Your task to perform on an android device: Go to sound settings Image 0: 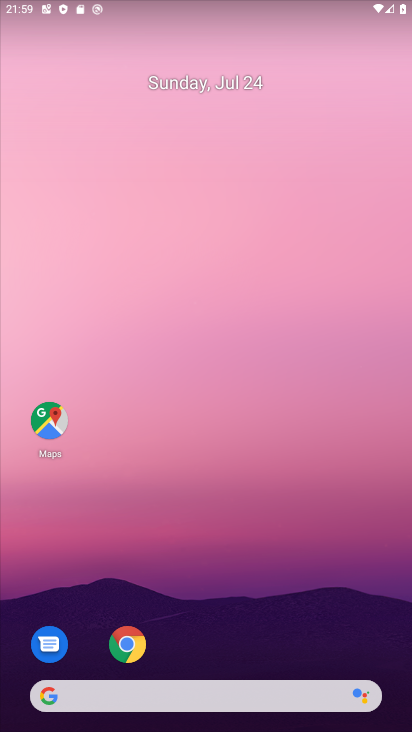
Step 0: drag from (386, 653) to (332, 84)
Your task to perform on an android device: Go to sound settings Image 1: 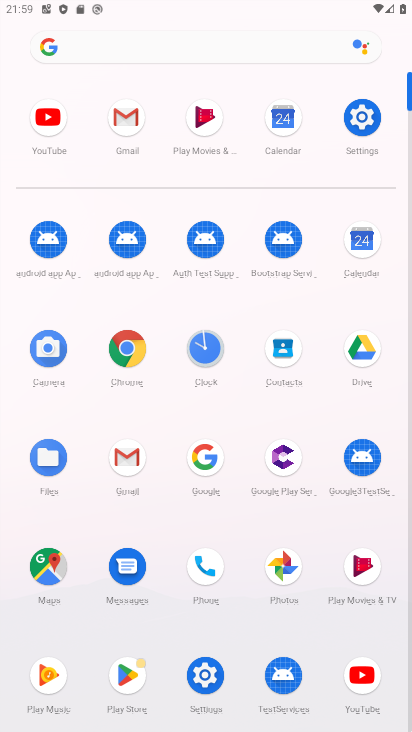
Step 1: click (203, 674)
Your task to perform on an android device: Go to sound settings Image 2: 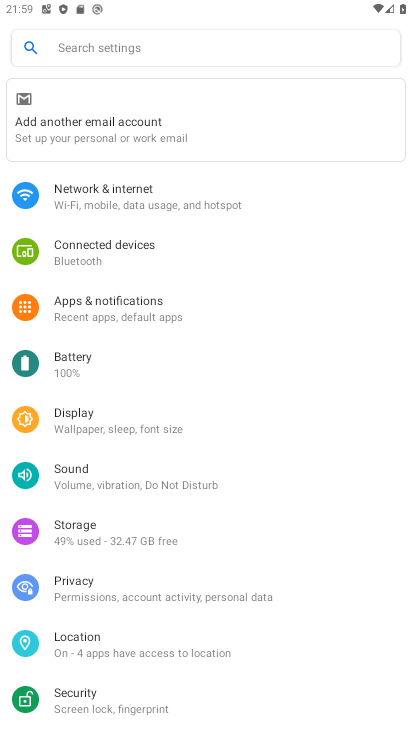
Step 2: click (65, 472)
Your task to perform on an android device: Go to sound settings Image 3: 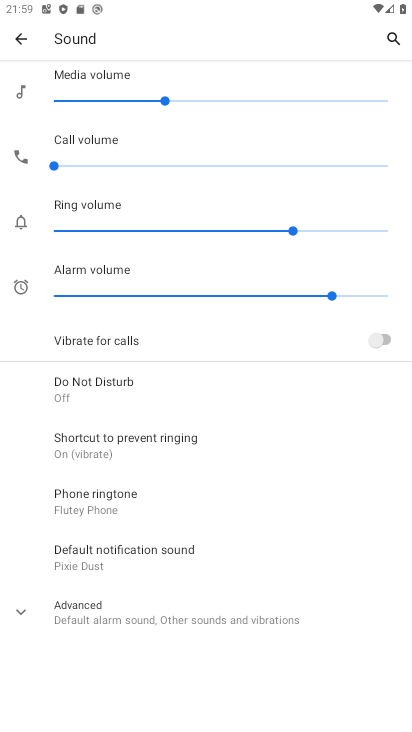
Step 3: click (21, 613)
Your task to perform on an android device: Go to sound settings Image 4: 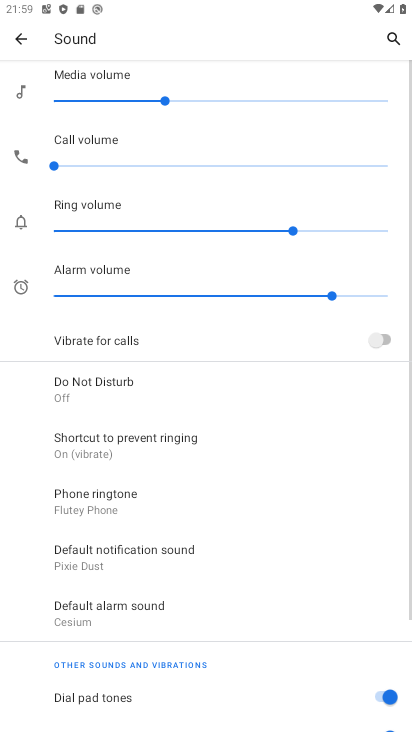
Step 4: task complete